Your task to perform on an android device: change text size in settings app Image 0: 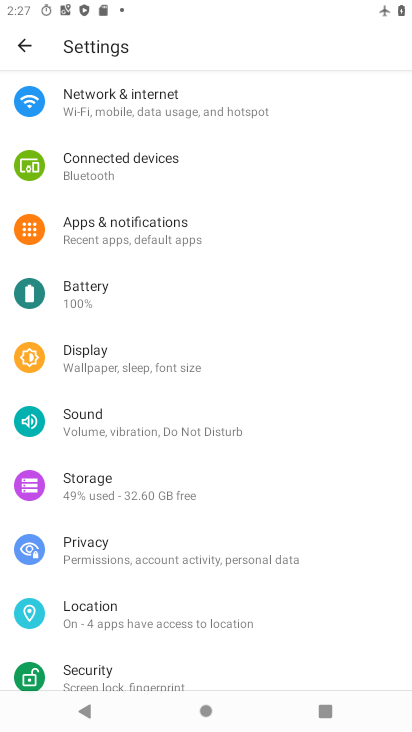
Step 0: click (190, 370)
Your task to perform on an android device: change text size in settings app Image 1: 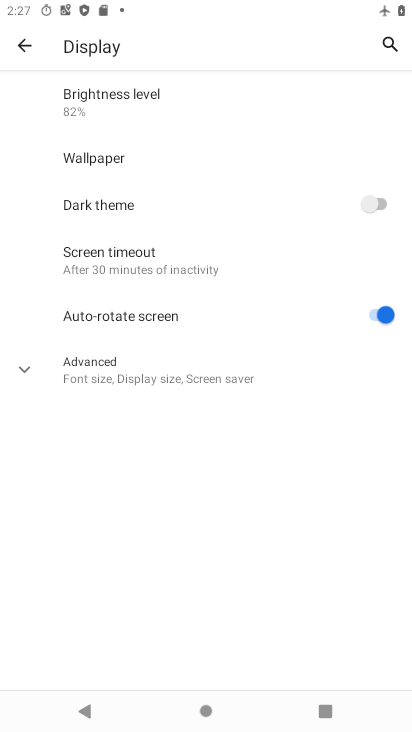
Step 1: click (129, 369)
Your task to perform on an android device: change text size in settings app Image 2: 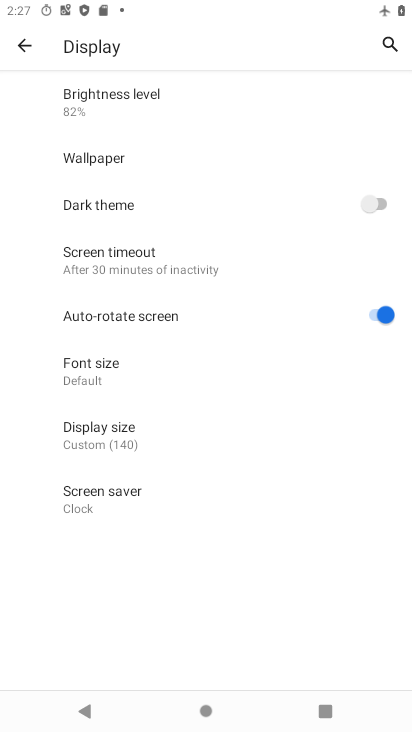
Step 2: click (117, 361)
Your task to perform on an android device: change text size in settings app Image 3: 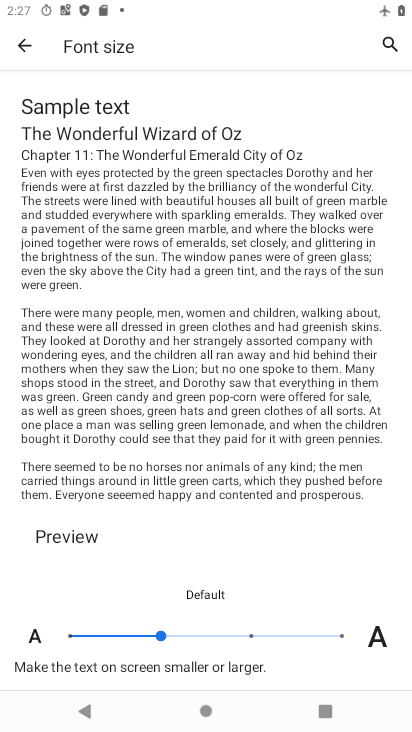
Step 3: click (198, 638)
Your task to perform on an android device: change text size in settings app Image 4: 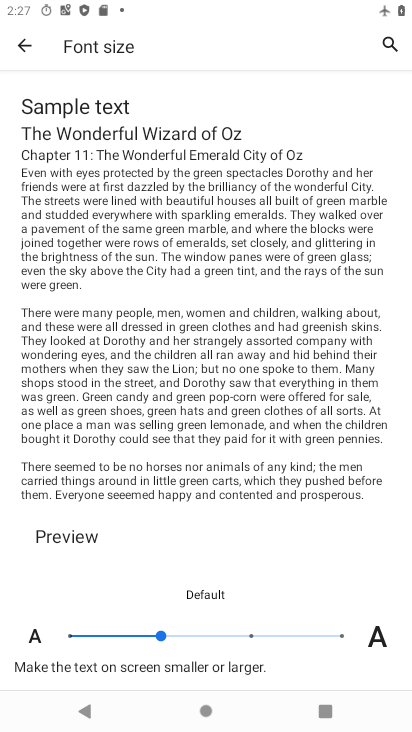
Step 4: click (198, 633)
Your task to perform on an android device: change text size in settings app Image 5: 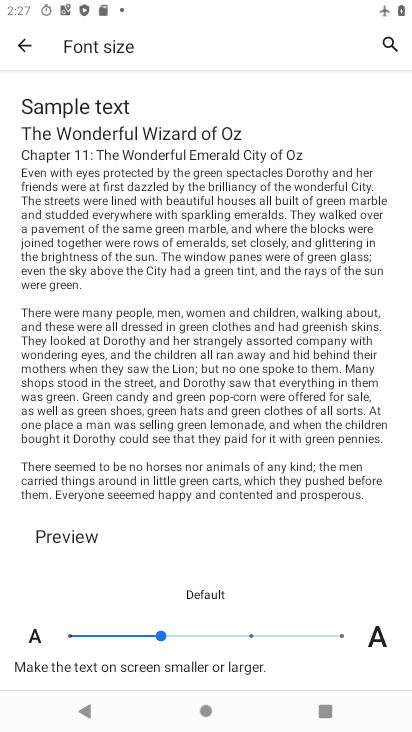
Step 5: drag from (163, 635) to (239, 650)
Your task to perform on an android device: change text size in settings app Image 6: 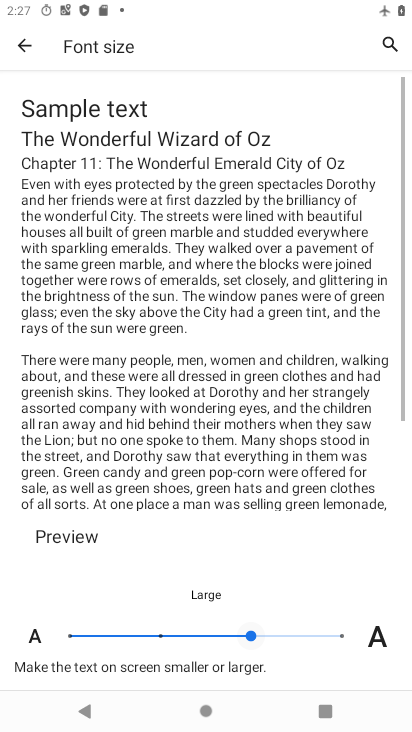
Step 6: click (218, 632)
Your task to perform on an android device: change text size in settings app Image 7: 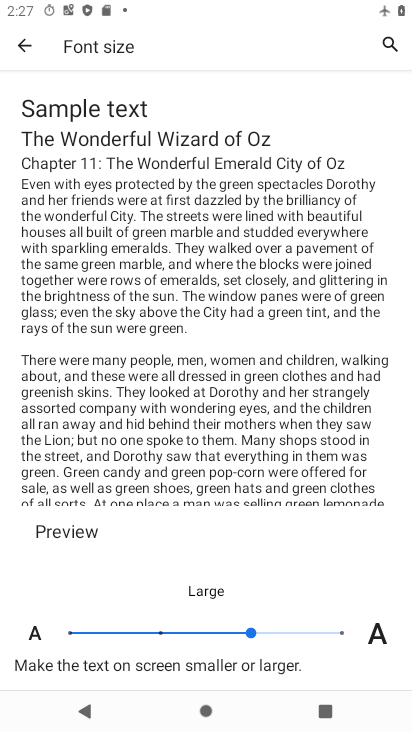
Step 7: task complete